Your task to perform on an android device: Turn on the flashlight Image 0: 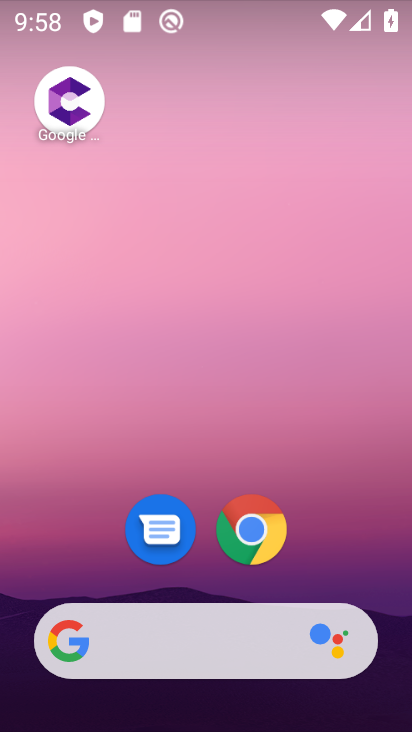
Step 0: drag from (80, 490) to (239, 164)
Your task to perform on an android device: Turn on the flashlight Image 1: 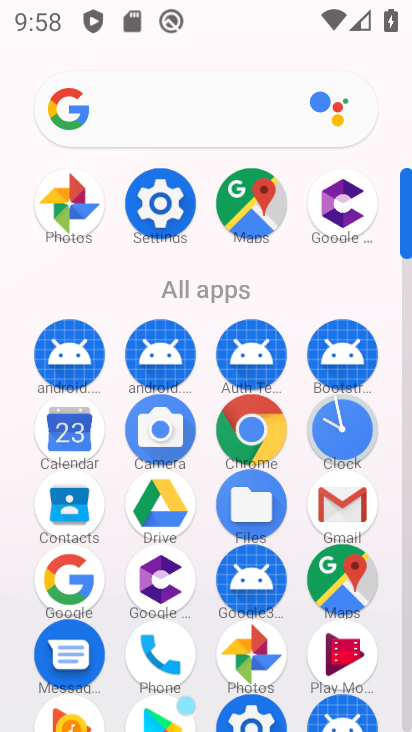
Step 1: click (179, 192)
Your task to perform on an android device: Turn on the flashlight Image 2: 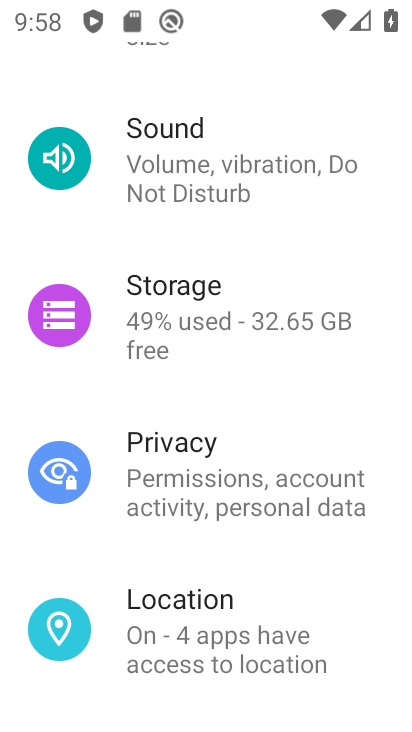
Step 2: drag from (279, 98) to (225, 561)
Your task to perform on an android device: Turn on the flashlight Image 3: 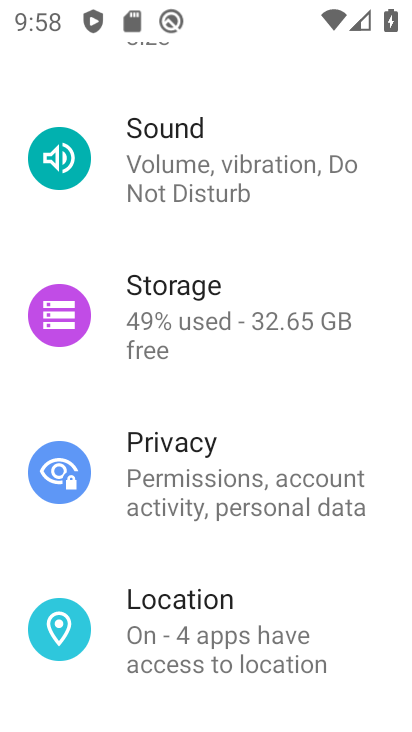
Step 3: click (225, 465)
Your task to perform on an android device: Turn on the flashlight Image 4: 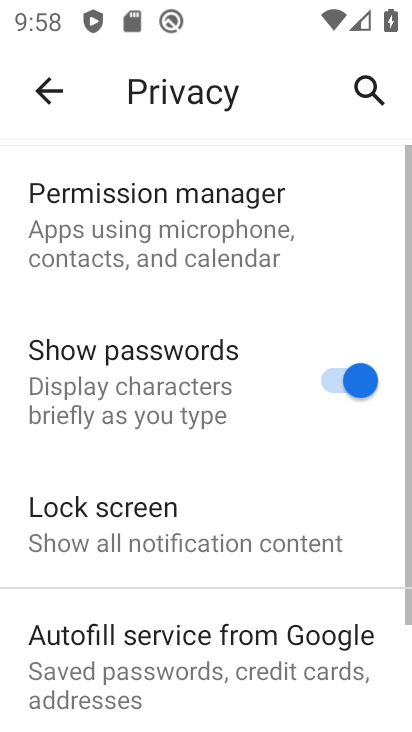
Step 4: task complete